Your task to perform on an android device: show emergency info Image 0: 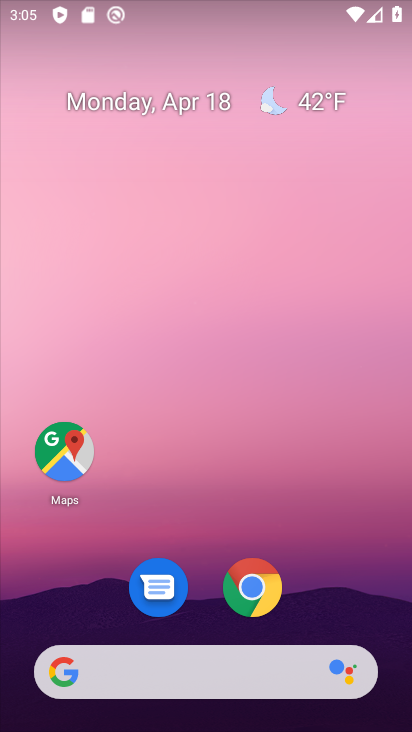
Step 0: drag from (292, 609) to (398, 7)
Your task to perform on an android device: show emergency info Image 1: 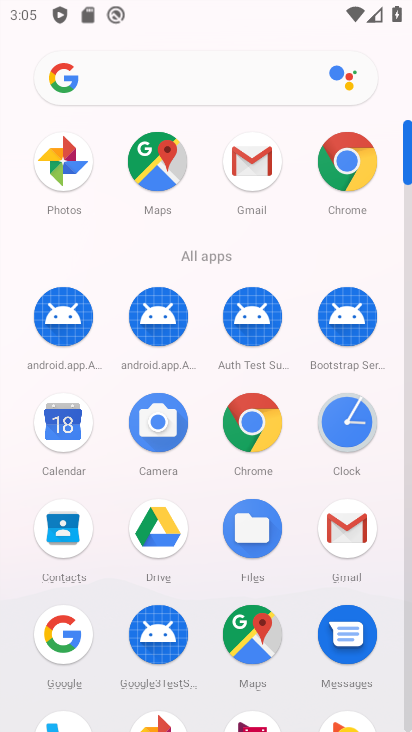
Step 1: drag from (197, 599) to (236, 111)
Your task to perform on an android device: show emergency info Image 2: 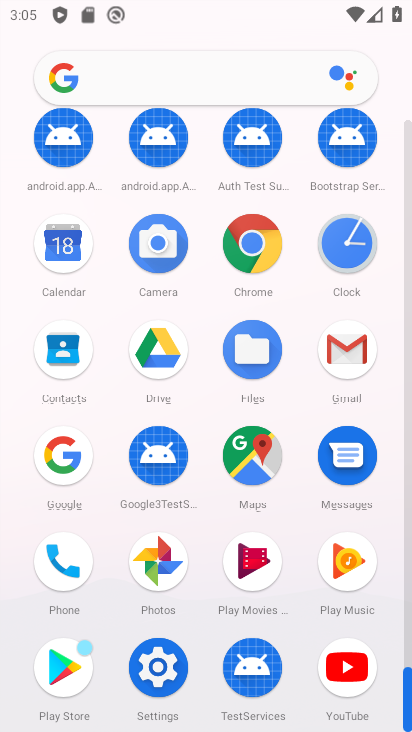
Step 2: click (164, 662)
Your task to perform on an android device: show emergency info Image 3: 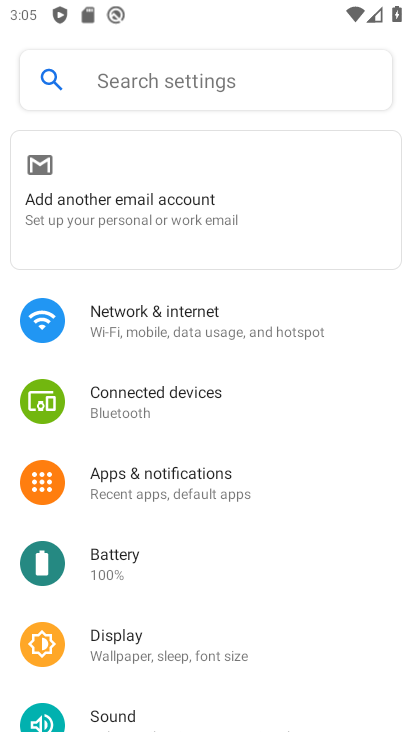
Step 3: drag from (135, 610) to (285, 101)
Your task to perform on an android device: show emergency info Image 4: 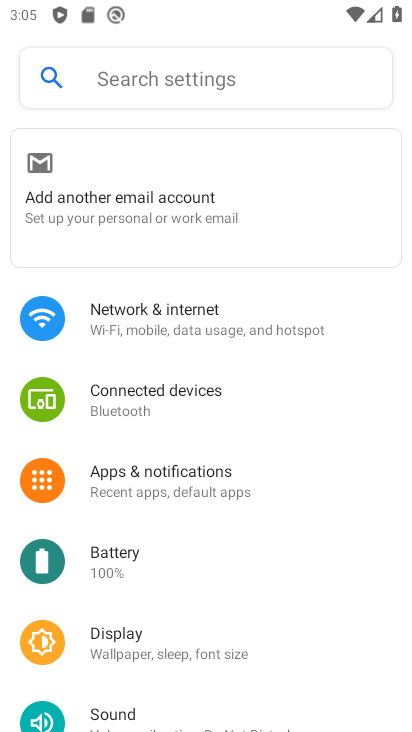
Step 4: drag from (137, 602) to (331, 9)
Your task to perform on an android device: show emergency info Image 5: 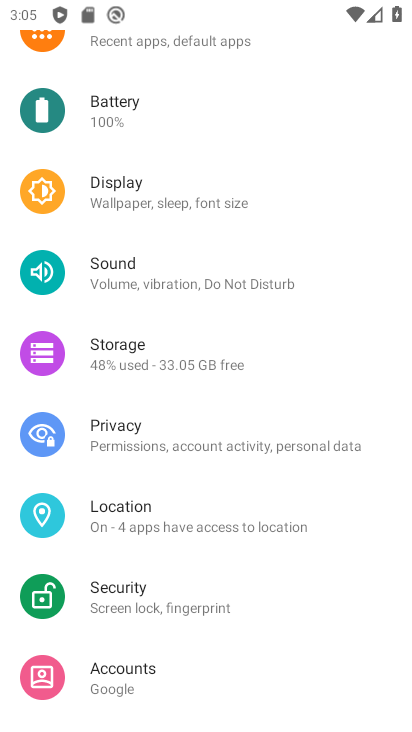
Step 5: drag from (130, 589) to (298, 53)
Your task to perform on an android device: show emergency info Image 6: 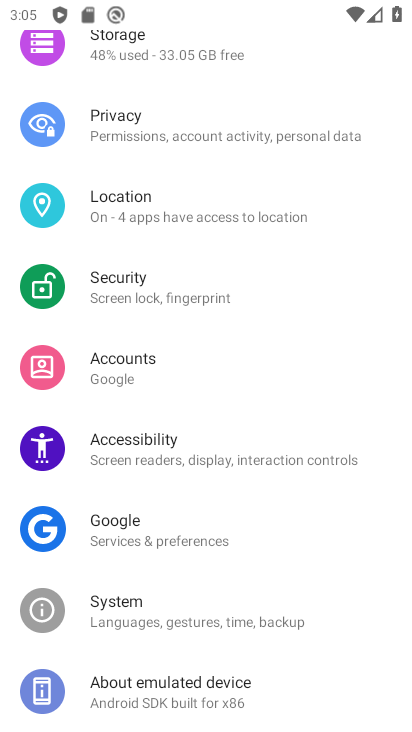
Step 6: drag from (178, 648) to (277, 284)
Your task to perform on an android device: show emergency info Image 7: 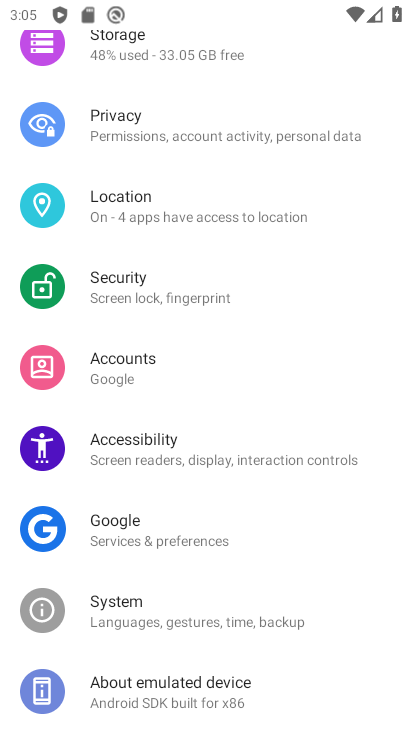
Step 7: click (137, 681)
Your task to perform on an android device: show emergency info Image 8: 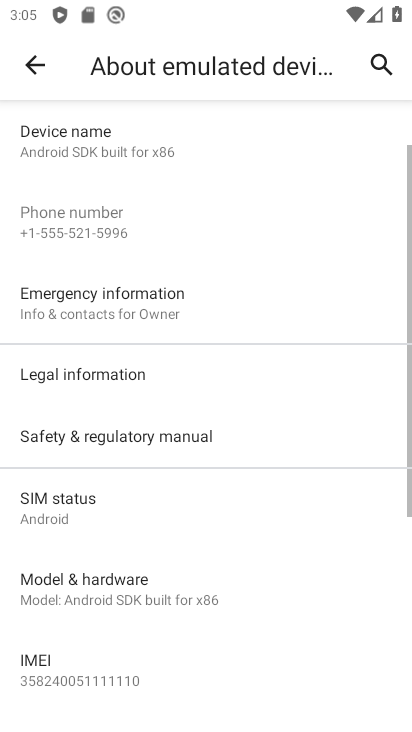
Step 8: click (130, 295)
Your task to perform on an android device: show emergency info Image 9: 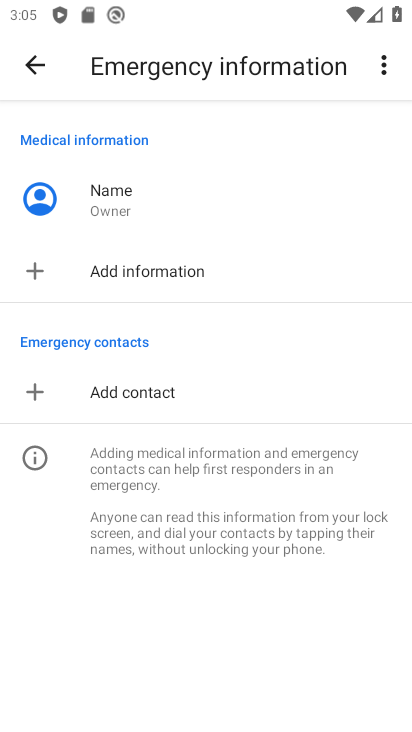
Step 9: task complete